Your task to perform on an android device: Open the phone app and click the voicemail tab. Image 0: 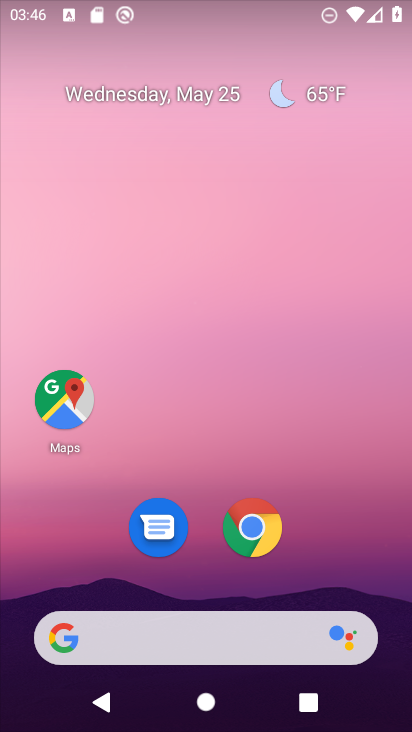
Step 0: drag from (295, 589) to (358, 1)
Your task to perform on an android device: Open the phone app and click the voicemail tab. Image 1: 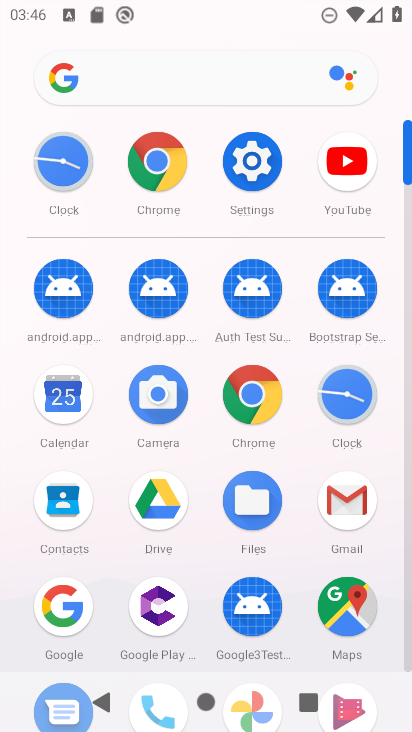
Step 1: drag from (205, 664) to (214, 452)
Your task to perform on an android device: Open the phone app and click the voicemail tab. Image 2: 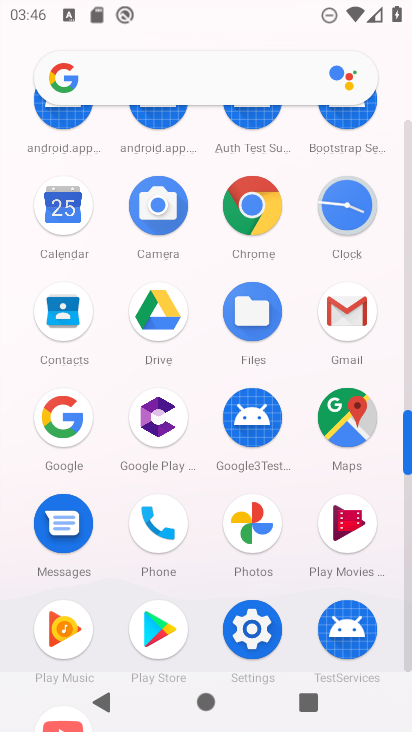
Step 2: click (166, 525)
Your task to perform on an android device: Open the phone app and click the voicemail tab. Image 3: 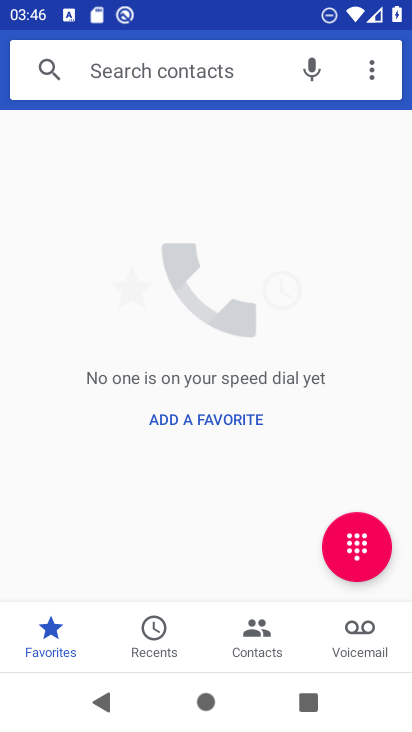
Step 3: click (362, 632)
Your task to perform on an android device: Open the phone app and click the voicemail tab. Image 4: 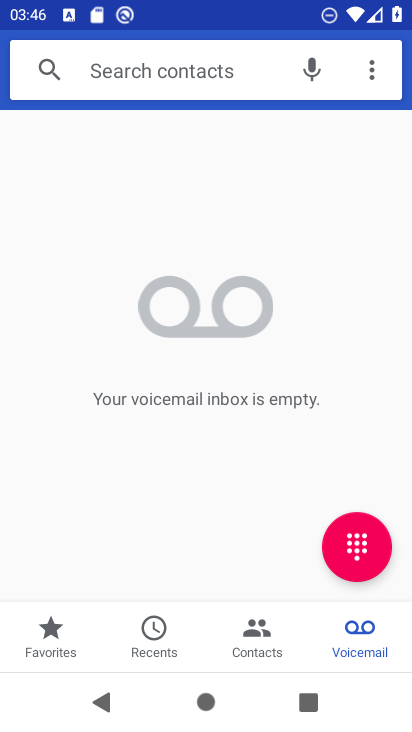
Step 4: task complete